Your task to perform on an android device: Open calendar and show me the second week of next month Image 0: 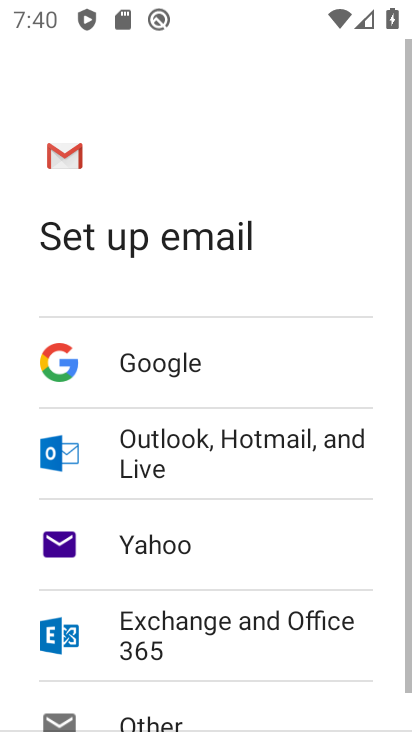
Step 0: press home button
Your task to perform on an android device: Open calendar and show me the second week of next month Image 1: 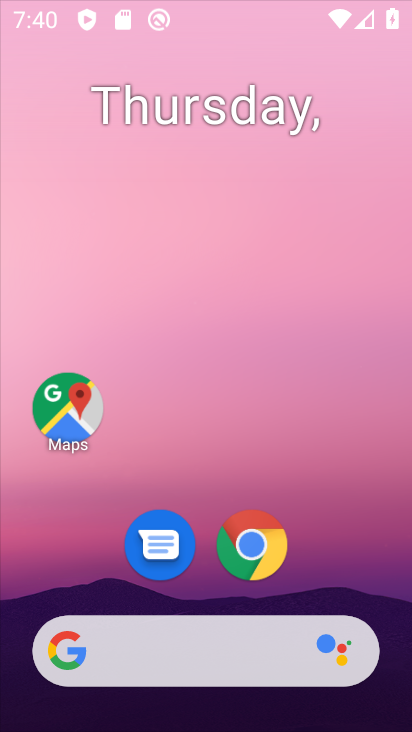
Step 1: drag from (180, 659) to (294, 126)
Your task to perform on an android device: Open calendar and show me the second week of next month Image 2: 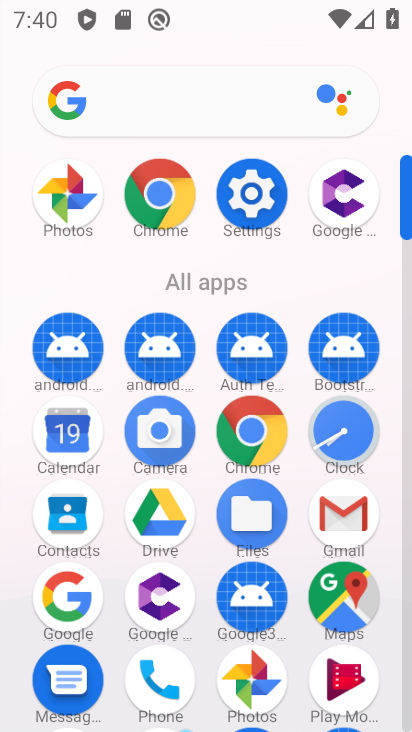
Step 2: click (38, 440)
Your task to perform on an android device: Open calendar and show me the second week of next month Image 3: 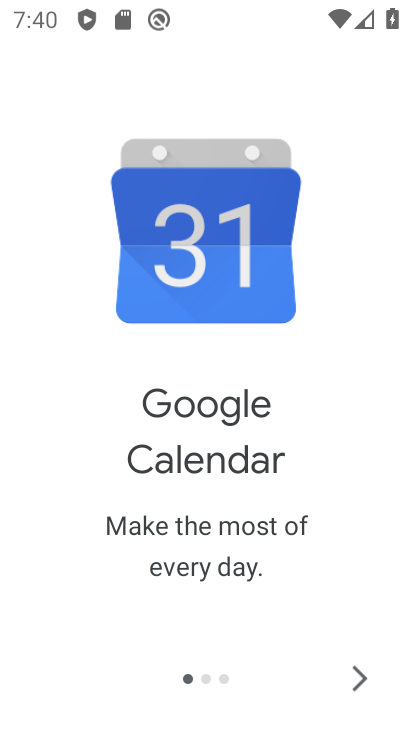
Step 3: click (353, 665)
Your task to perform on an android device: Open calendar and show me the second week of next month Image 4: 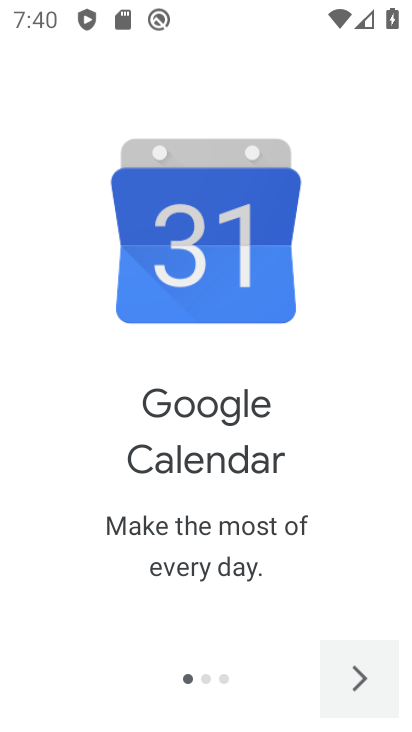
Step 4: click (353, 665)
Your task to perform on an android device: Open calendar and show me the second week of next month Image 5: 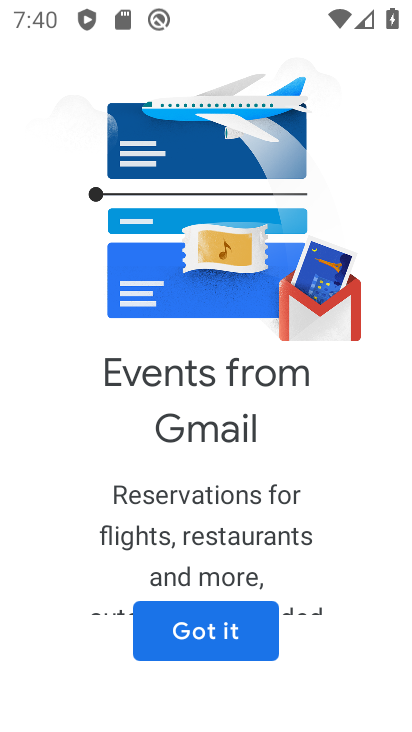
Step 5: click (353, 665)
Your task to perform on an android device: Open calendar and show me the second week of next month Image 6: 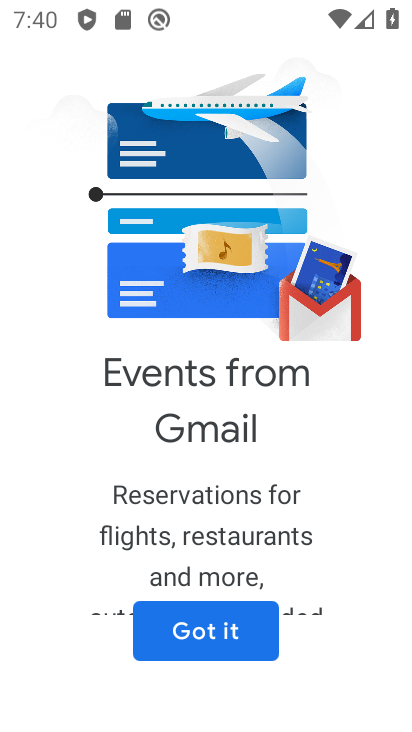
Step 6: click (220, 666)
Your task to perform on an android device: Open calendar and show me the second week of next month Image 7: 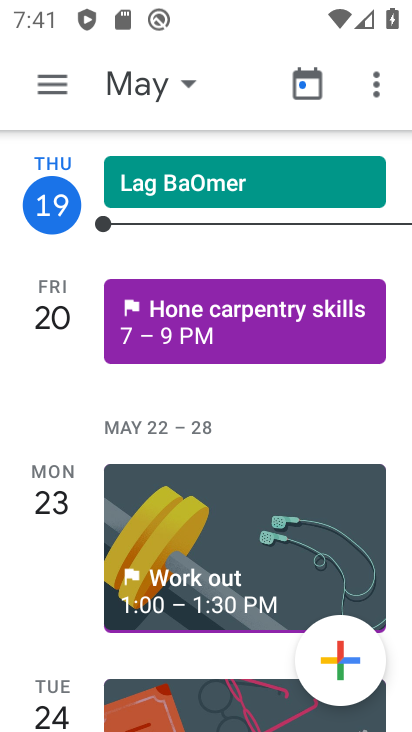
Step 7: click (181, 90)
Your task to perform on an android device: Open calendar and show me the second week of next month Image 8: 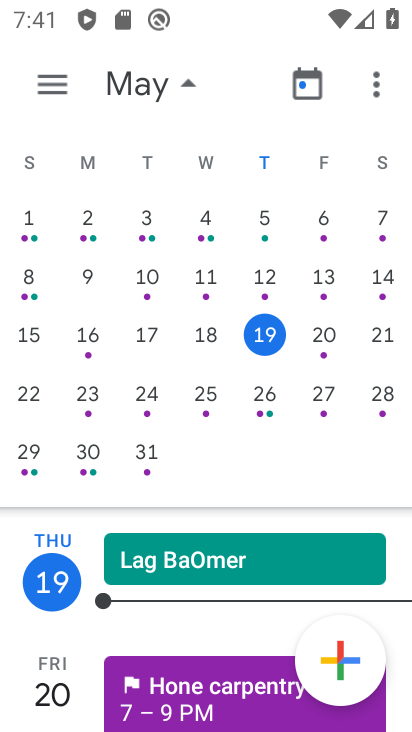
Step 8: drag from (394, 364) to (130, 348)
Your task to perform on an android device: Open calendar and show me the second week of next month Image 9: 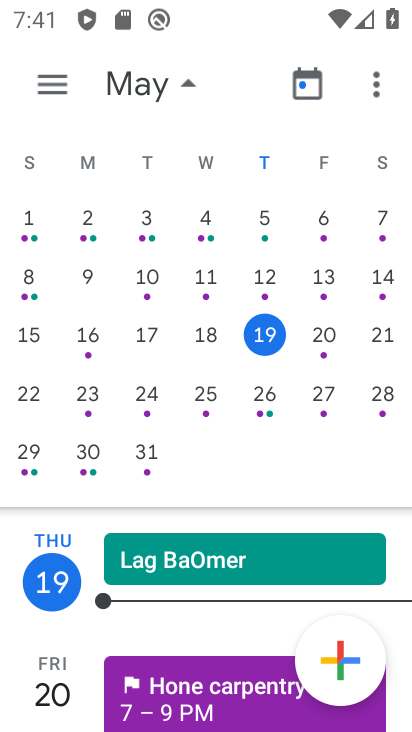
Step 9: drag from (397, 316) to (11, 346)
Your task to perform on an android device: Open calendar and show me the second week of next month Image 10: 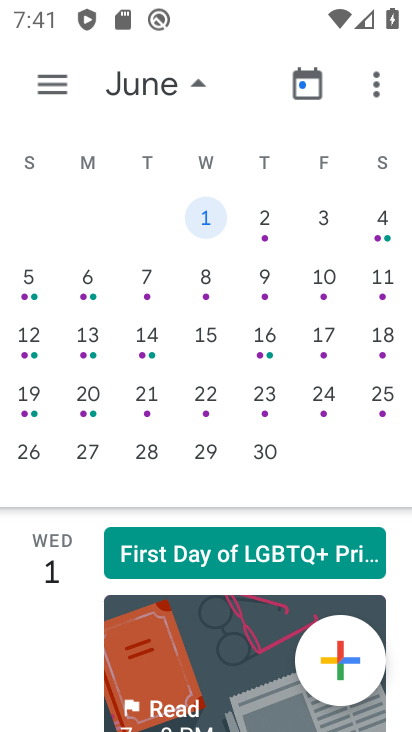
Step 10: click (380, 328)
Your task to perform on an android device: Open calendar and show me the second week of next month Image 11: 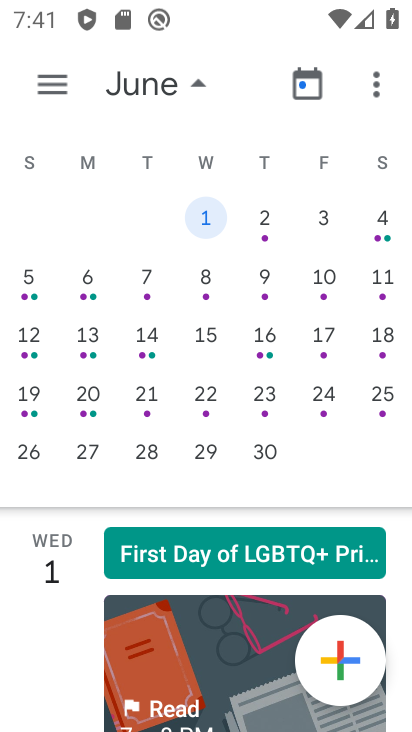
Step 11: click (211, 277)
Your task to perform on an android device: Open calendar and show me the second week of next month Image 12: 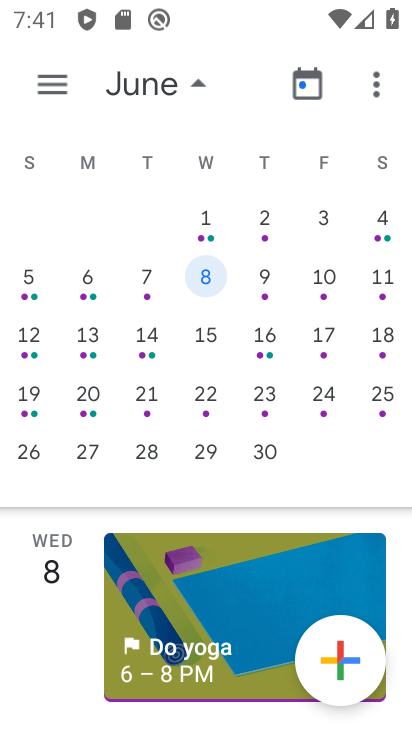
Step 12: task complete